Your task to perform on an android device: Open calendar and show me the third week of next month Image 0: 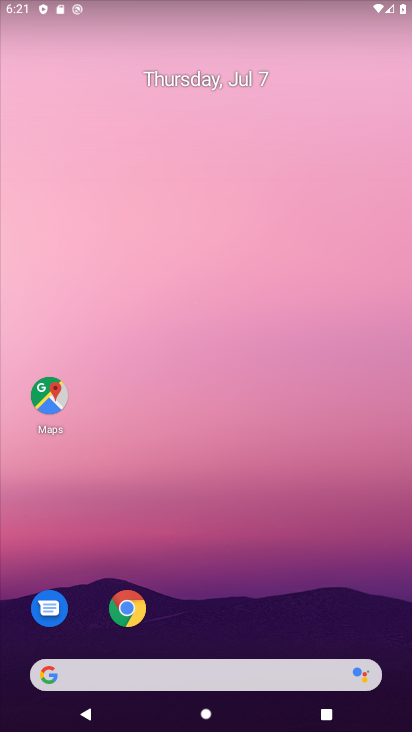
Step 0: drag from (233, 641) to (292, 19)
Your task to perform on an android device: Open calendar and show me the third week of next month Image 1: 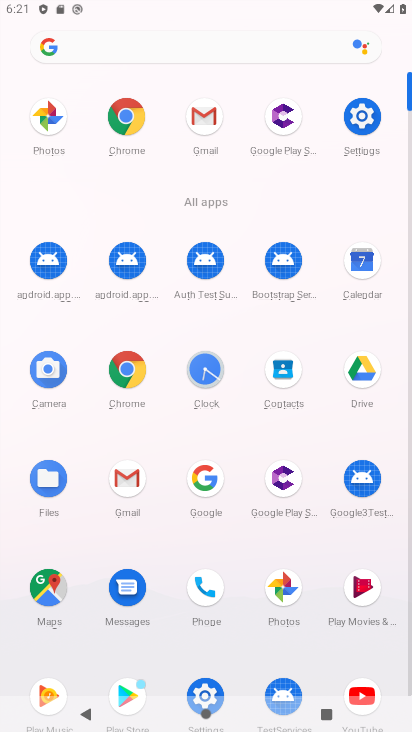
Step 1: click (364, 264)
Your task to perform on an android device: Open calendar and show me the third week of next month Image 2: 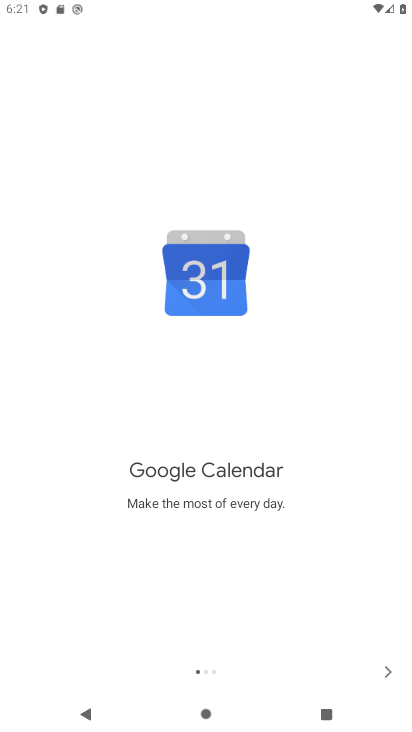
Step 2: click (396, 666)
Your task to perform on an android device: Open calendar and show me the third week of next month Image 3: 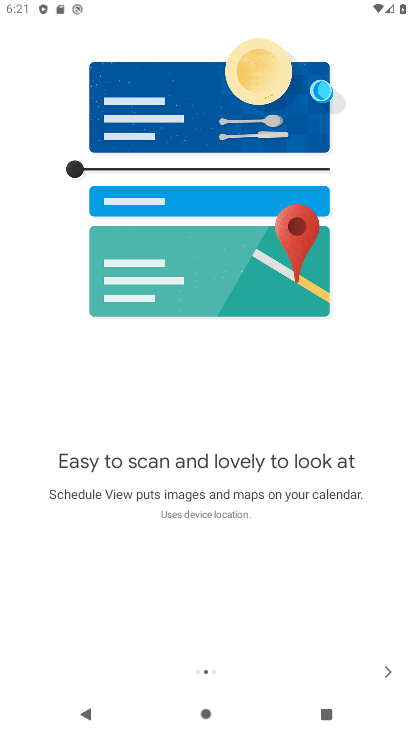
Step 3: click (385, 667)
Your task to perform on an android device: Open calendar and show me the third week of next month Image 4: 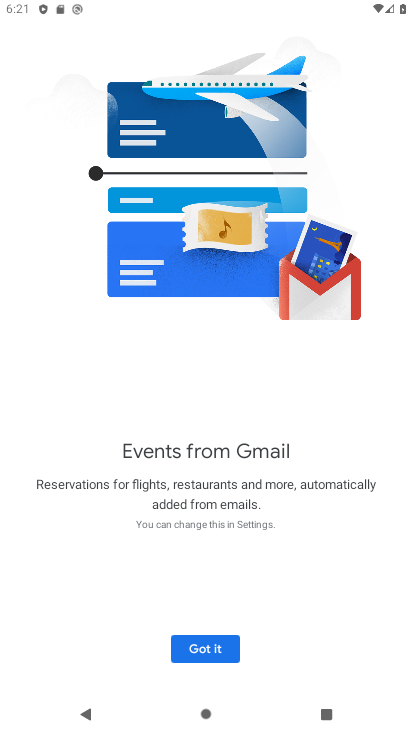
Step 4: click (221, 656)
Your task to perform on an android device: Open calendar and show me the third week of next month Image 5: 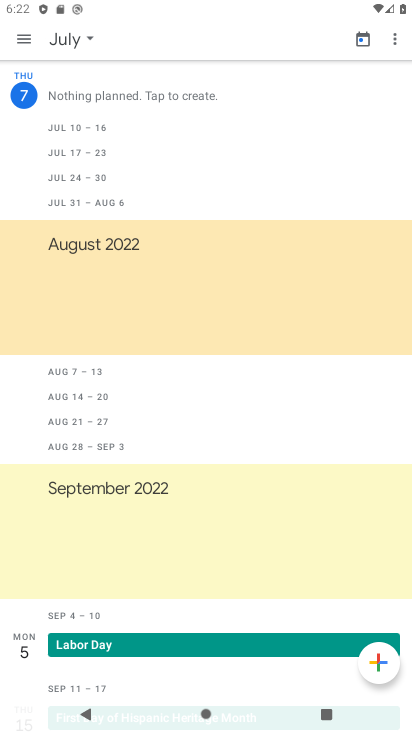
Step 5: click (73, 38)
Your task to perform on an android device: Open calendar and show me the third week of next month Image 6: 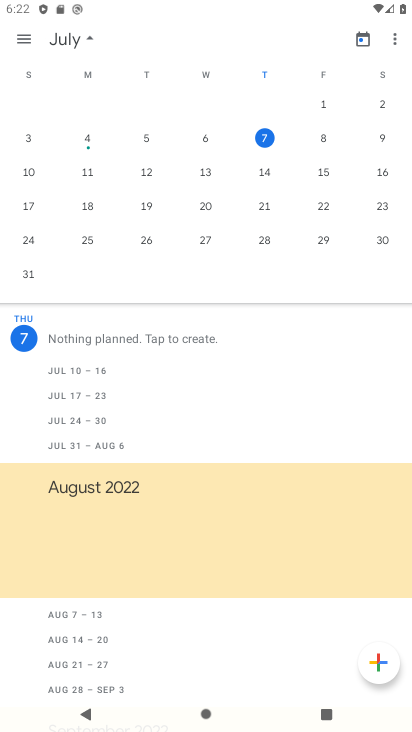
Step 6: drag from (372, 191) to (25, 201)
Your task to perform on an android device: Open calendar and show me the third week of next month Image 7: 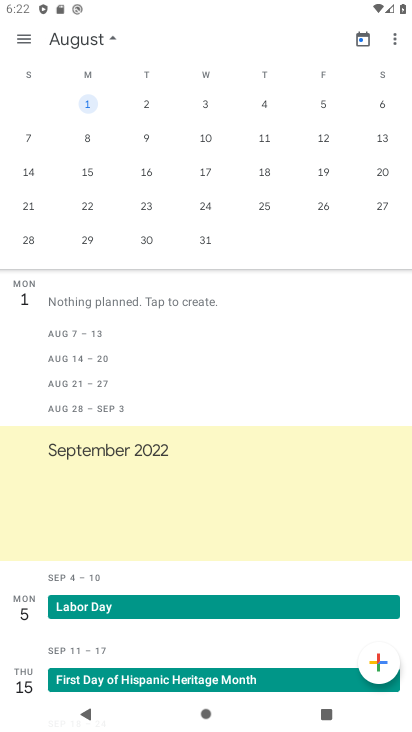
Step 7: click (91, 169)
Your task to perform on an android device: Open calendar and show me the third week of next month Image 8: 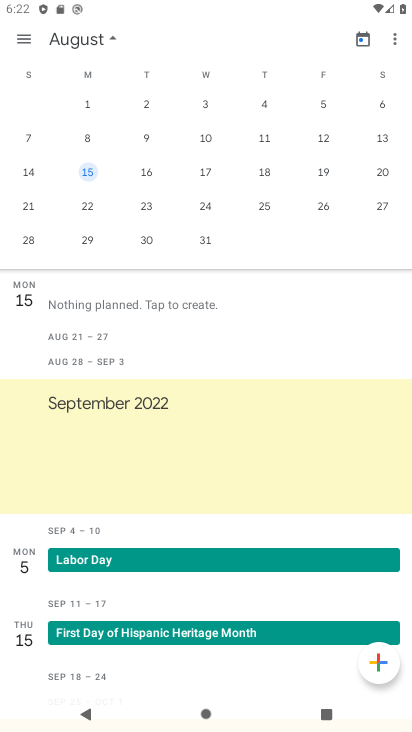
Step 8: task complete